Your task to perform on an android device: Go to Google Image 0: 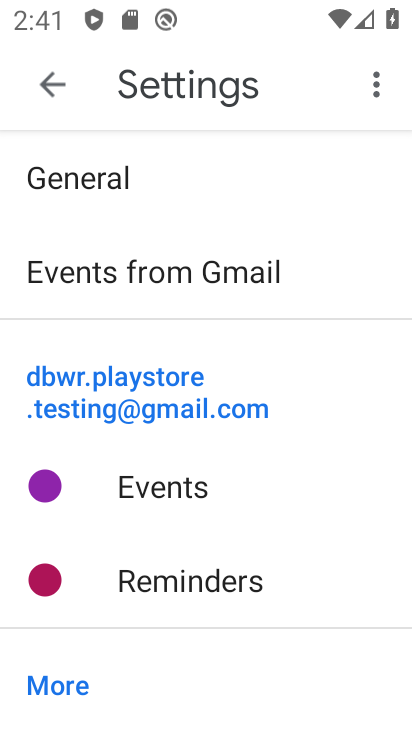
Step 0: press home button
Your task to perform on an android device: Go to Google Image 1: 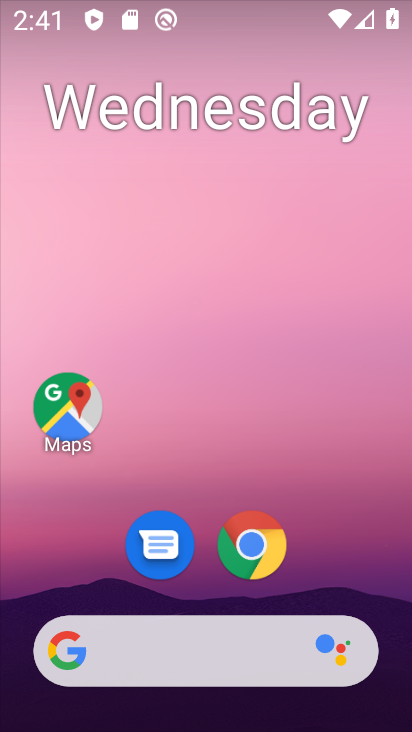
Step 1: drag from (230, 679) to (323, 196)
Your task to perform on an android device: Go to Google Image 2: 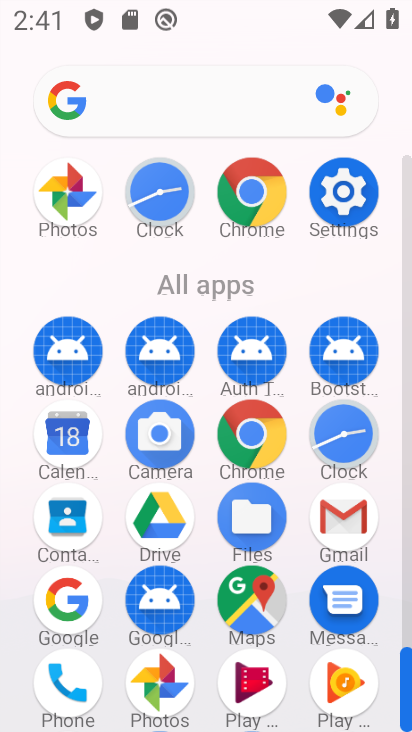
Step 2: click (58, 101)
Your task to perform on an android device: Go to Google Image 3: 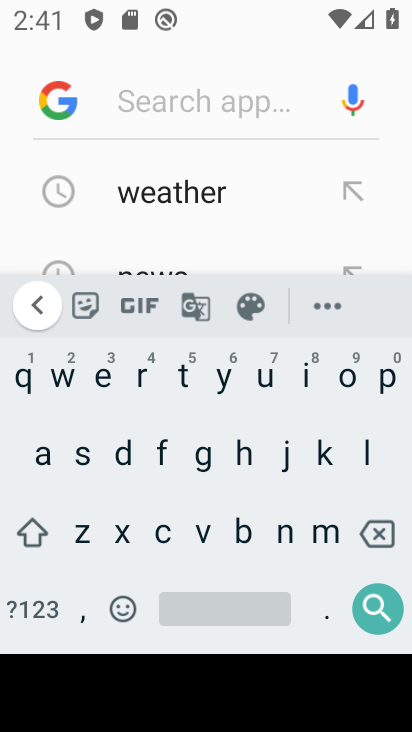
Step 3: click (74, 106)
Your task to perform on an android device: Go to Google Image 4: 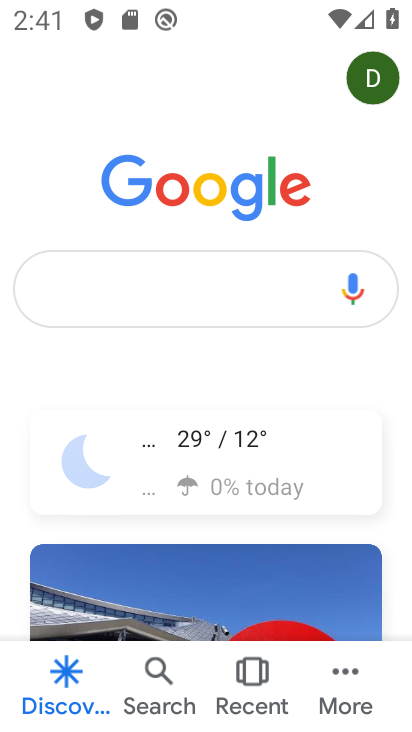
Step 4: task complete